Your task to perform on an android device: read, delete, or share a saved page in the chrome app Image 0: 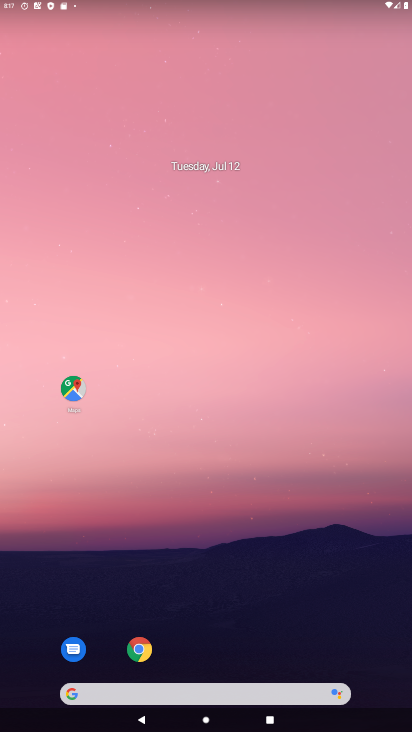
Step 0: drag from (313, 632) to (290, 125)
Your task to perform on an android device: read, delete, or share a saved page in the chrome app Image 1: 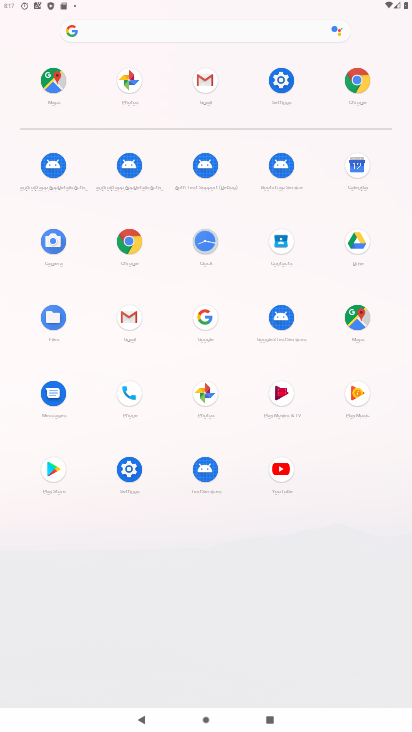
Step 1: click (127, 242)
Your task to perform on an android device: read, delete, or share a saved page in the chrome app Image 2: 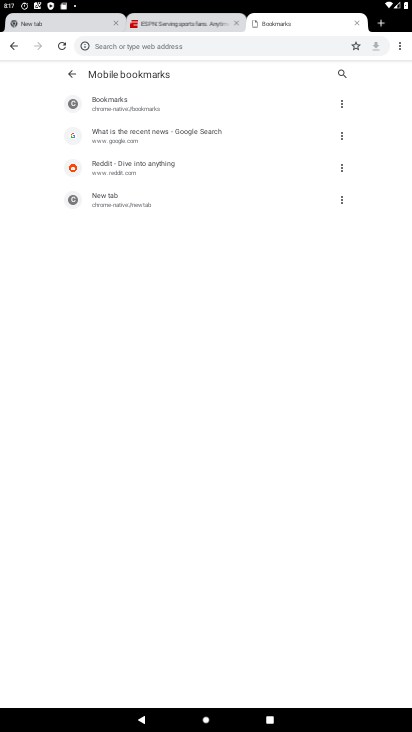
Step 2: task complete